Your task to perform on an android device: check storage Image 0: 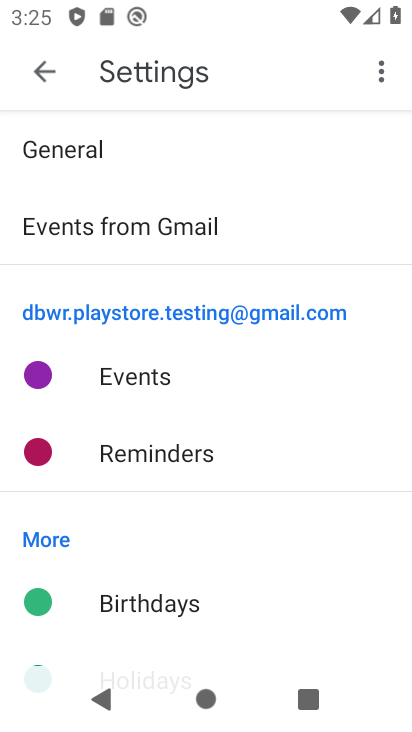
Step 0: press back button
Your task to perform on an android device: check storage Image 1: 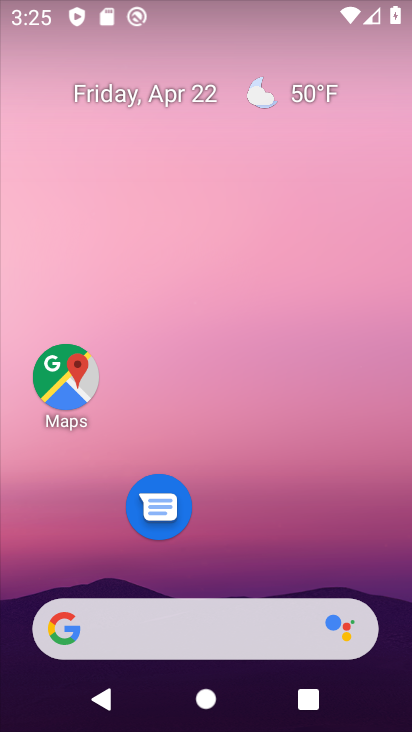
Step 1: drag from (221, 464) to (256, 82)
Your task to perform on an android device: check storage Image 2: 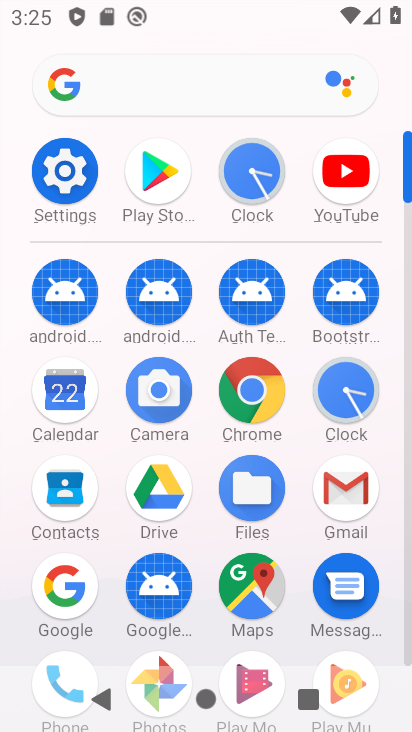
Step 2: click (68, 187)
Your task to perform on an android device: check storage Image 3: 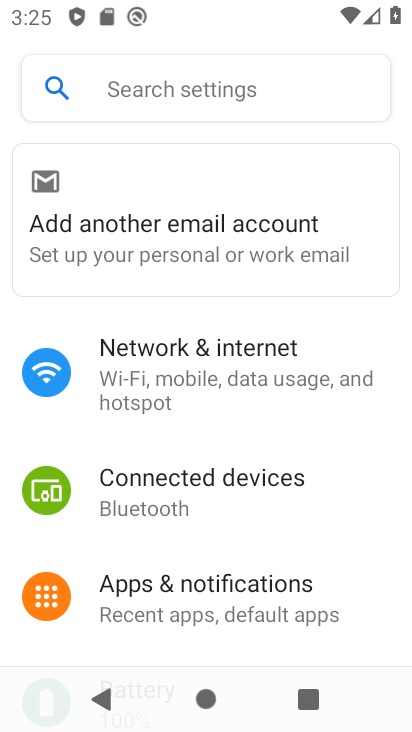
Step 3: drag from (217, 522) to (251, 49)
Your task to perform on an android device: check storage Image 4: 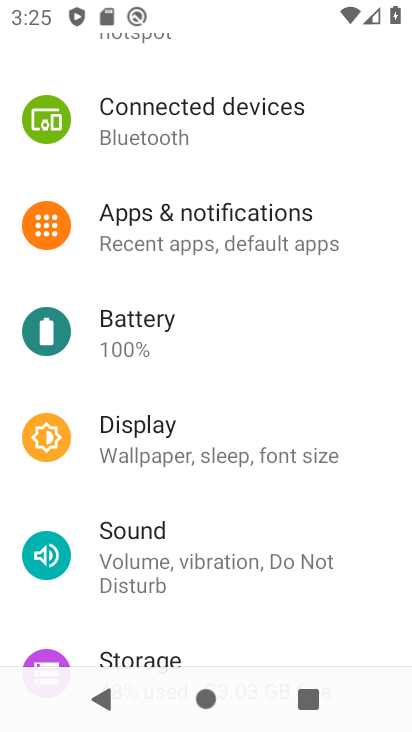
Step 4: click (146, 655)
Your task to perform on an android device: check storage Image 5: 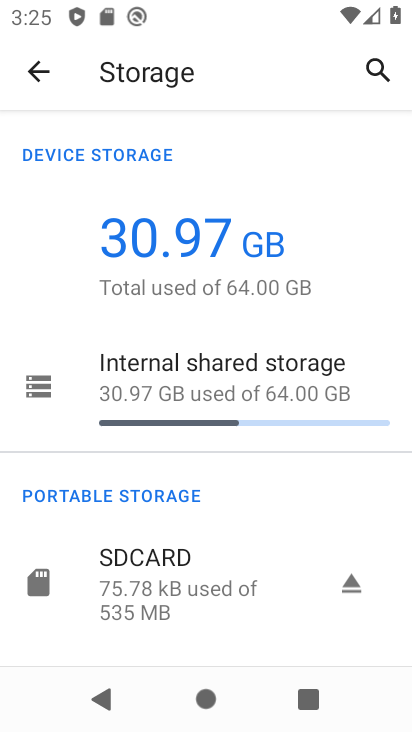
Step 5: task complete